Your task to perform on an android device: Go to Google maps Image 0: 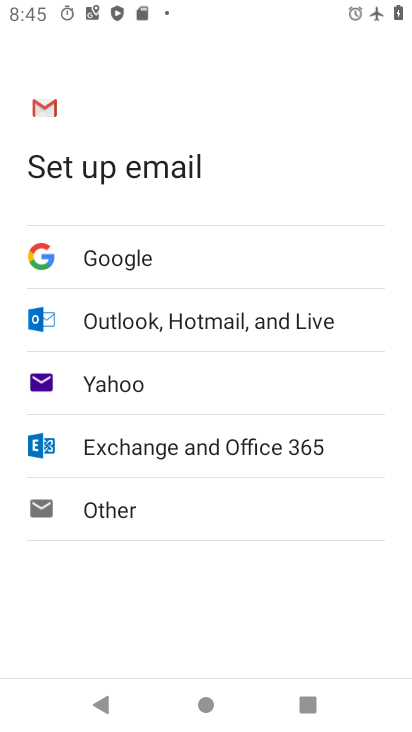
Step 0: press home button
Your task to perform on an android device: Go to Google maps Image 1: 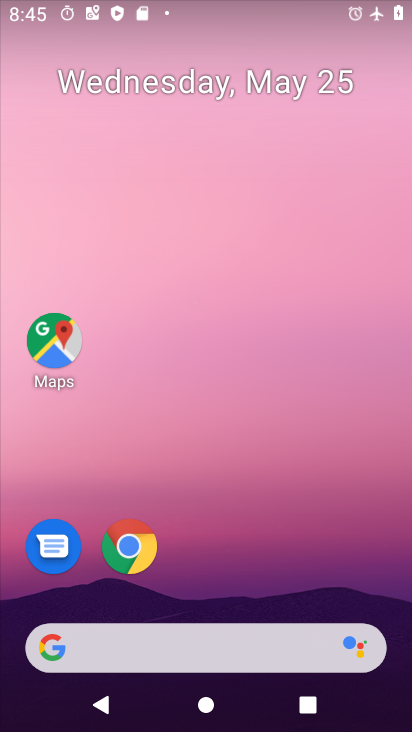
Step 1: click (46, 342)
Your task to perform on an android device: Go to Google maps Image 2: 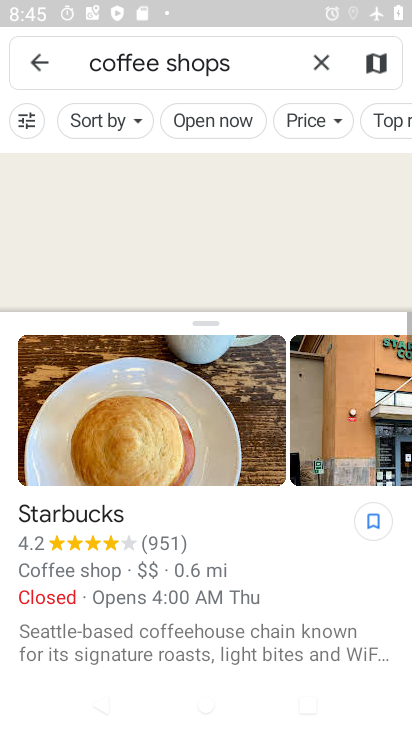
Step 2: task complete